Your task to perform on an android device: Open my contact list Image 0: 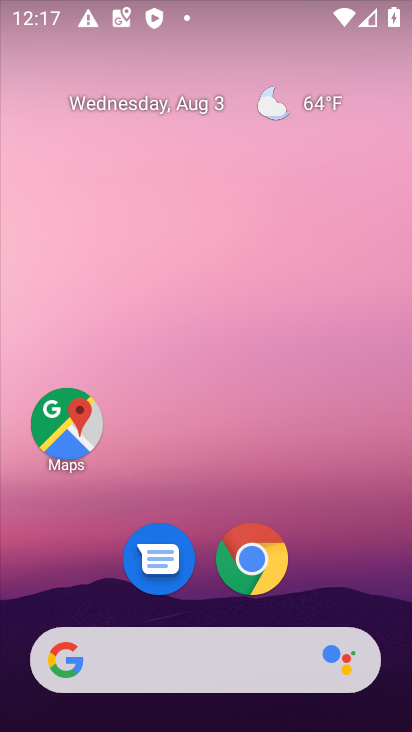
Step 0: drag from (191, 616) to (203, 289)
Your task to perform on an android device: Open my contact list Image 1: 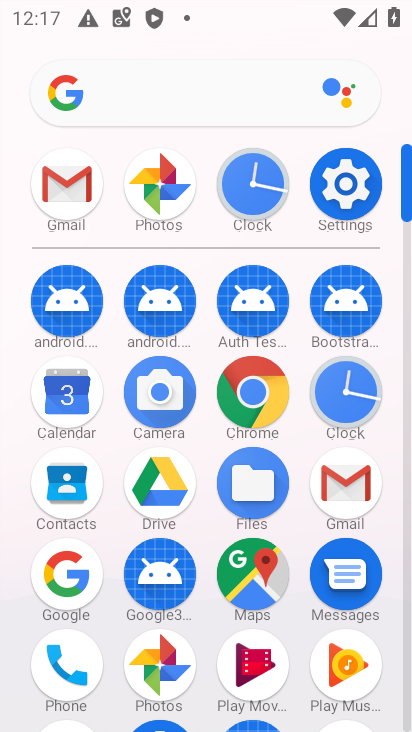
Step 1: click (70, 482)
Your task to perform on an android device: Open my contact list Image 2: 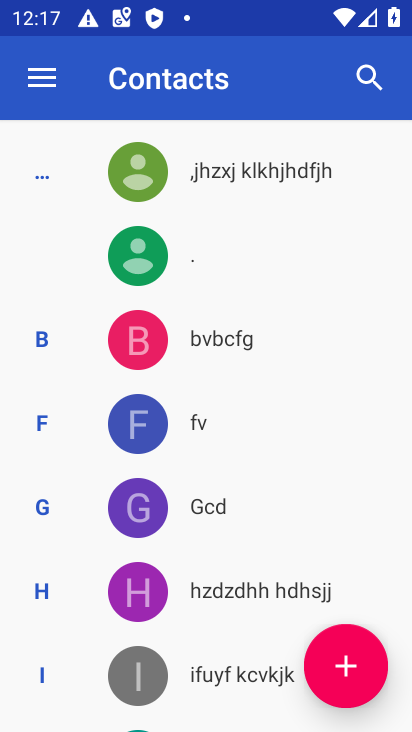
Step 2: task complete